Your task to perform on an android device: Go to privacy settings Image 0: 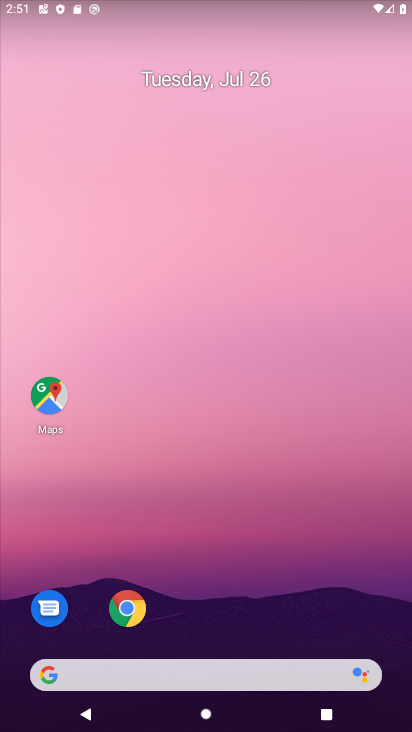
Step 0: drag from (265, 654) to (258, 93)
Your task to perform on an android device: Go to privacy settings Image 1: 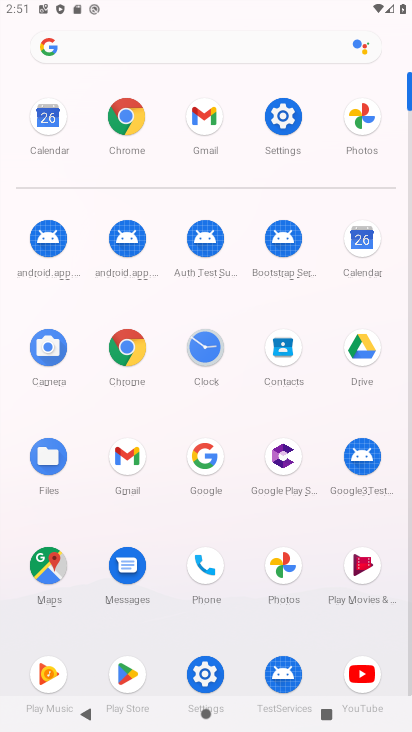
Step 1: task complete